Your task to perform on an android device: turn off location Image 0: 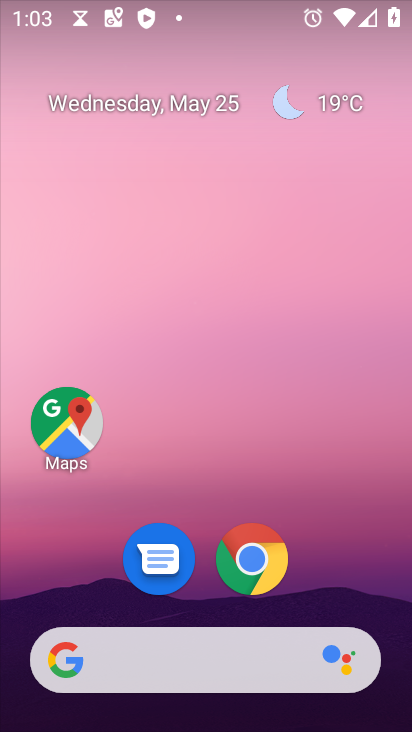
Step 0: drag from (366, 635) to (314, 80)
Your task to perform on an android device: turn off location Image 1: 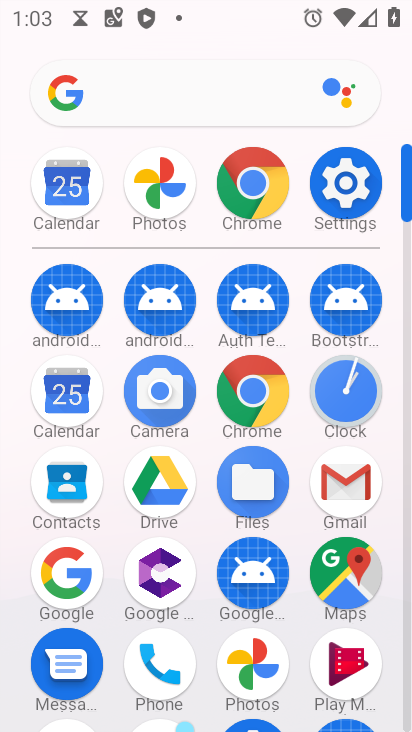
Step 1: click (355, 184)
Your task to perform on an android device: turn off location Image 2: 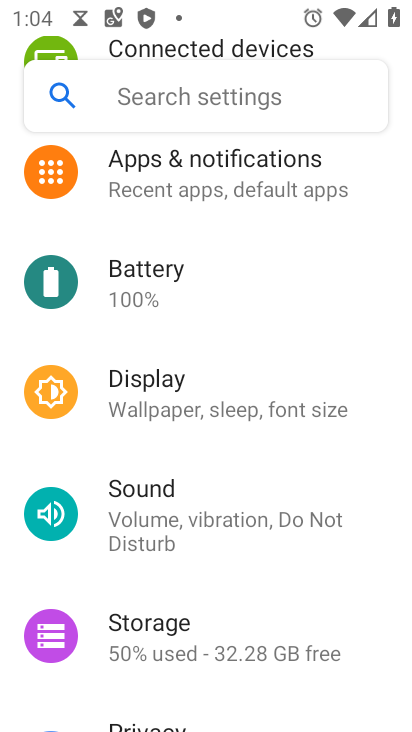
Step 2: drag from (230, 618) to (280, 84)
Your task to perform on an android device: turn off location Image 3: 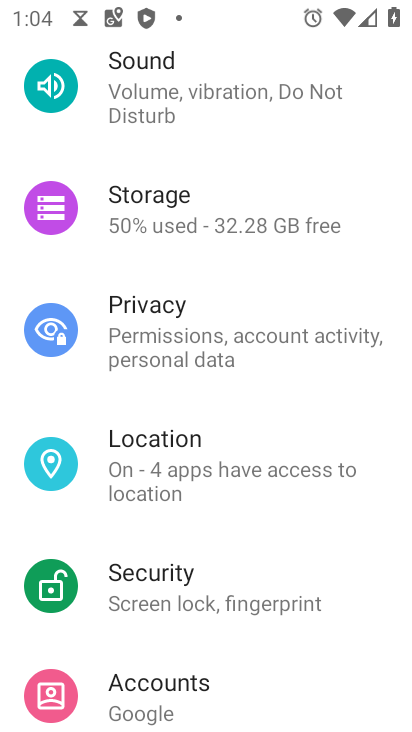
Step 3: click (178, 502)
Your task to perform on an android device: turn off location Image 4: 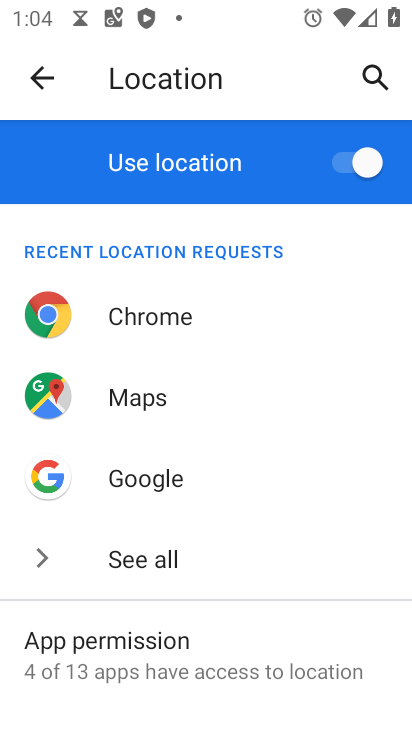
Step 4: click (346, 169)
Your task to perform on an android device: turn off location Image 5: 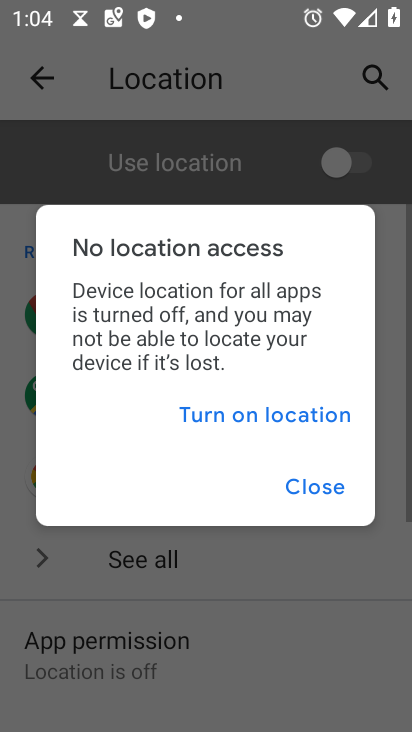
Step 5: task complete